Your task to perform on an android device: toggle show notifications on the lock screen Image 0: 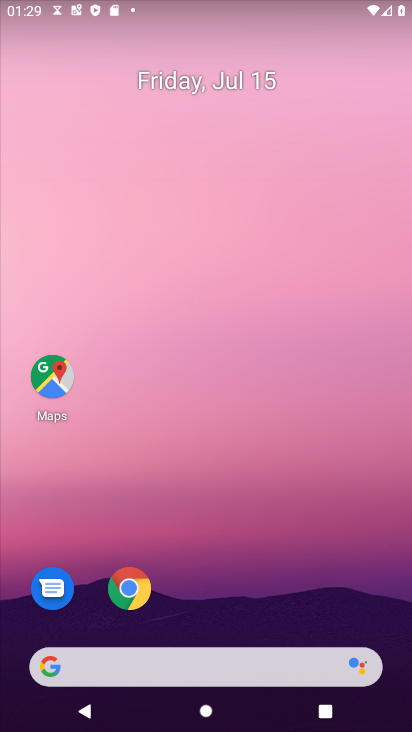
Step 0: drag from (202, 626) to (320, 15)
Your task to perform on an android device: toggle show notifications on the lock screen Image 1: 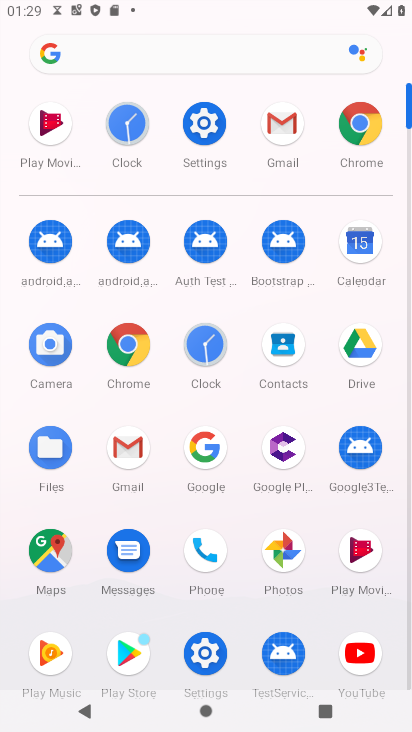
Step 1: click (198, 129)
Your task to perform on an android device: toggle show notifications on the lock screen Image 2: 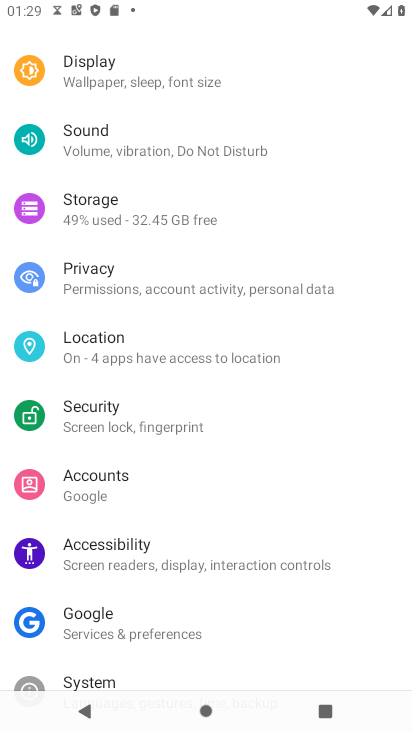
Step 2: drag from (210, 138) to (159, 722)
Your task to perform on an android device: toggle show notifications on the lock screen Image 3: 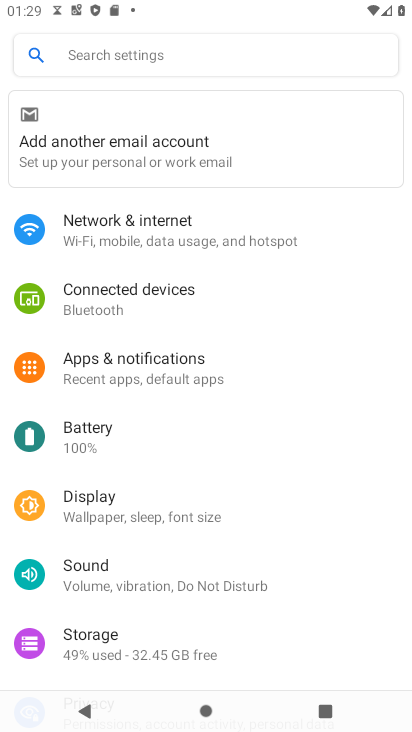
Step 3: click (162, 366)
Your task to perform on an android device: toggle show notifications on the lock screen Image 4: 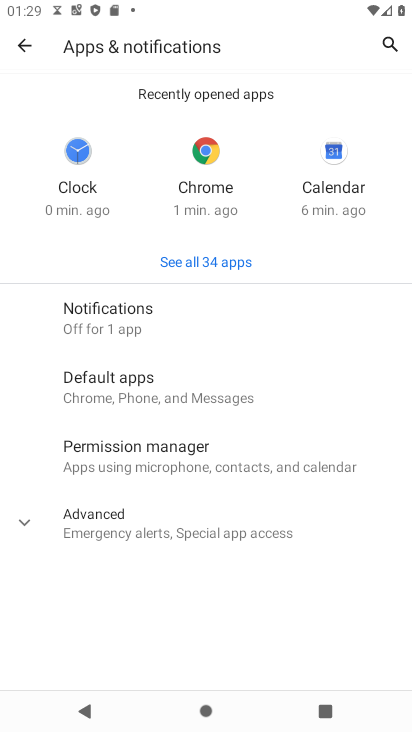
Step 4: click (122, 306)
Your task to perform on an android device: toggle show notifications on the lock screen Image 5: 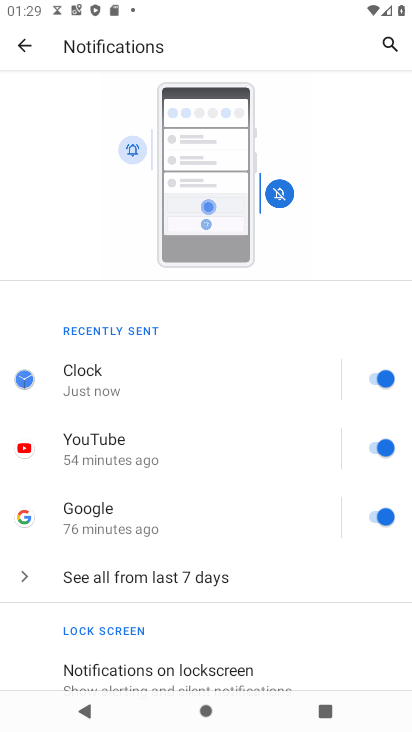
Step 5: click (132, 668)
Your task to perform on an android device: toggle show notifications on the lock screen Image 6: 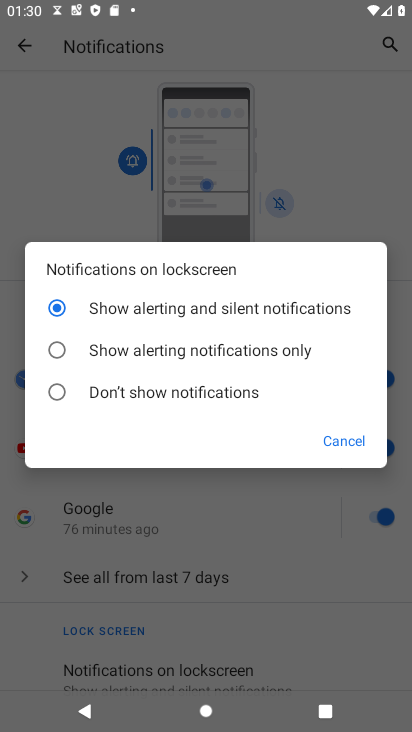
Step 6: click (56, 295)
Your task to perform on an android device: toggle show notifications on the lock screen Image 7: 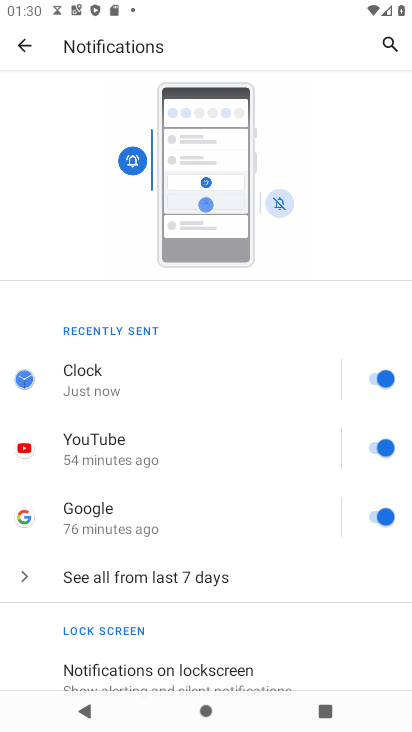
Step 7: task complete